Your task to perform on an android device: change notifications settings Image 0: 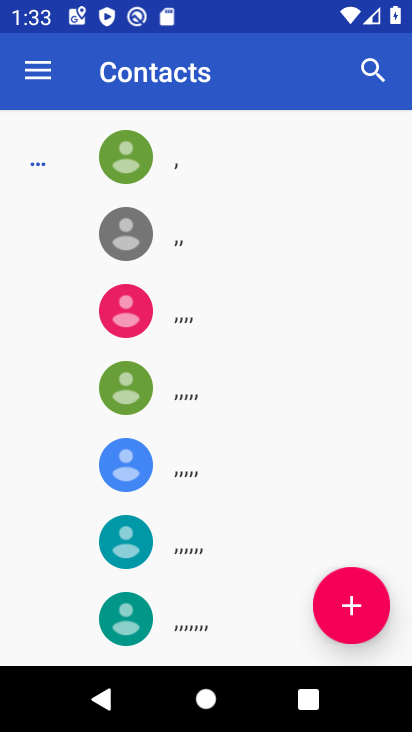
Step 0: press home button
Your task to perform on an android device: change notifications settings Image 1: 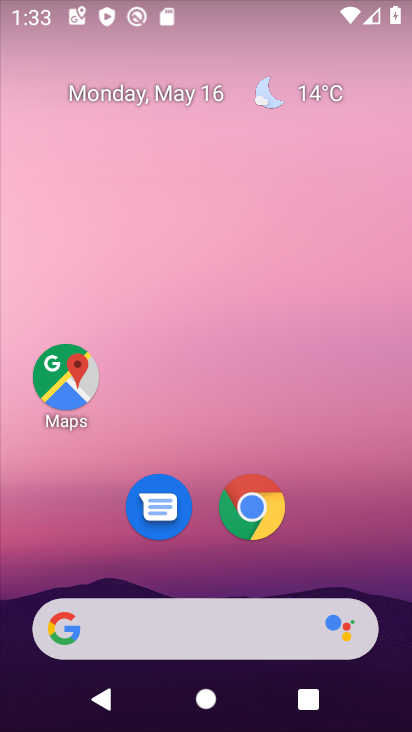
Step 1: drag from (264, 565) to (237, 199)
Your task to perform on an android device: change notifications settings Image 2: 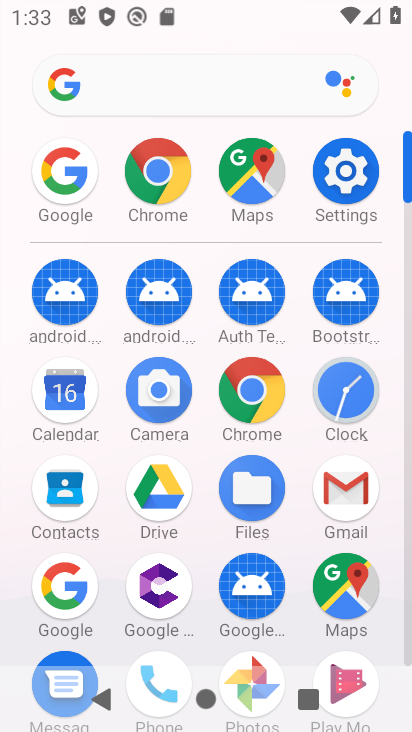
Step 2: click (360, 192)
Your task to perform on an android device: change notifications settings Image 3: 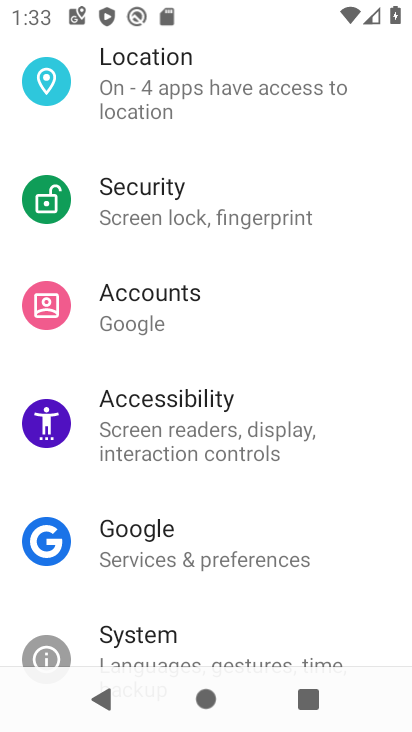
Step 3: drag from (211, 557) to (235, 722)
Your task to perform on an android device: change notifications settings Image 4: 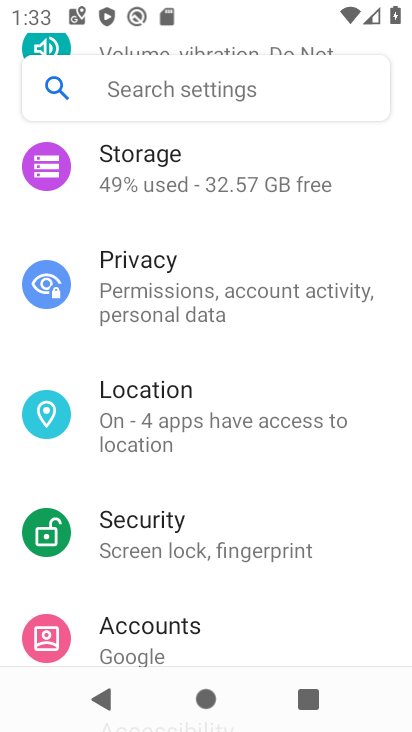
Step 4: drag from (273, 265) to (294, 709)
Your task to perform on an android device: change notifications settings Image 5: 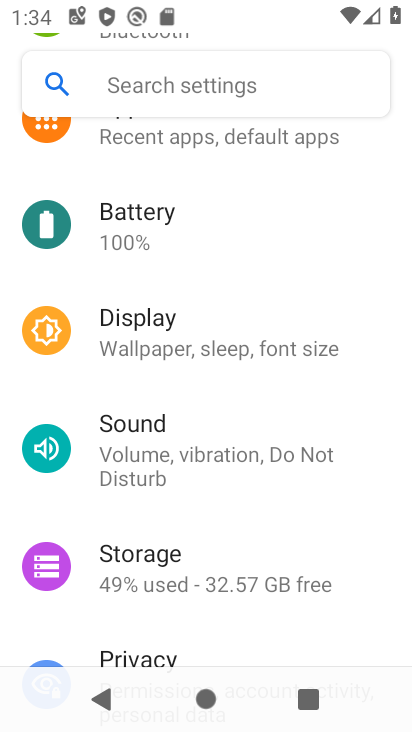
Step 5: drag from (295, 223) to (258, 681)
Your task to perform on an android device: change notifications settings Image 6: 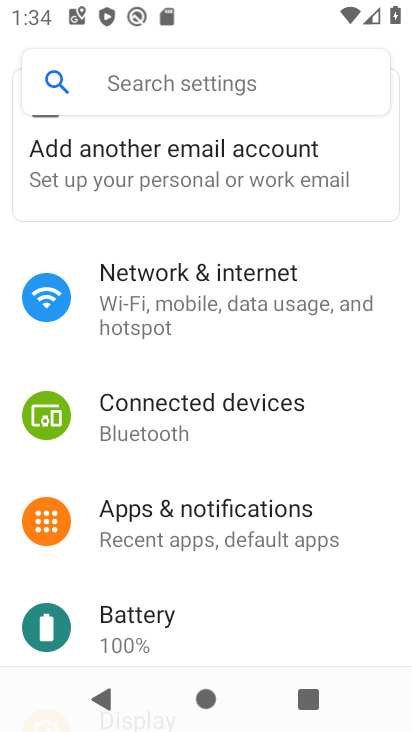
Step 6: click (260, 532)
Your task to perform on an android device: change notifications settings Image 7: 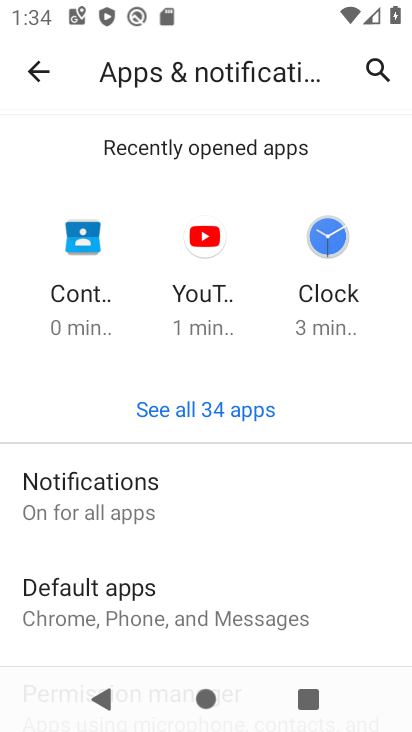
Step 7: click (230, 507)
Your task to perform on an android device: change notifications settings Image 8: 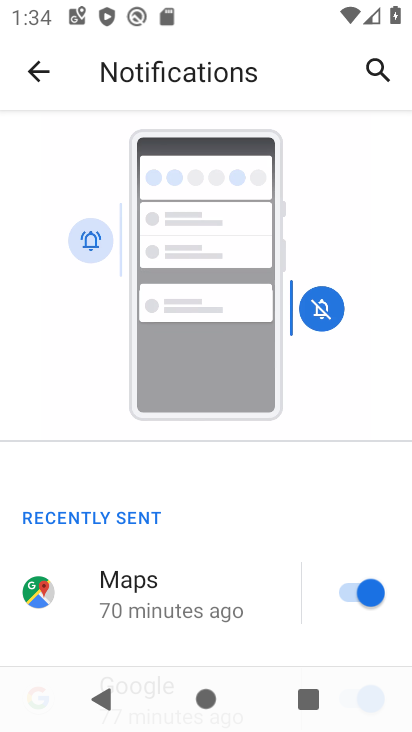
Step 8: click (383, 602)
Your task to perform on an android device: change notifications settings Image 9: 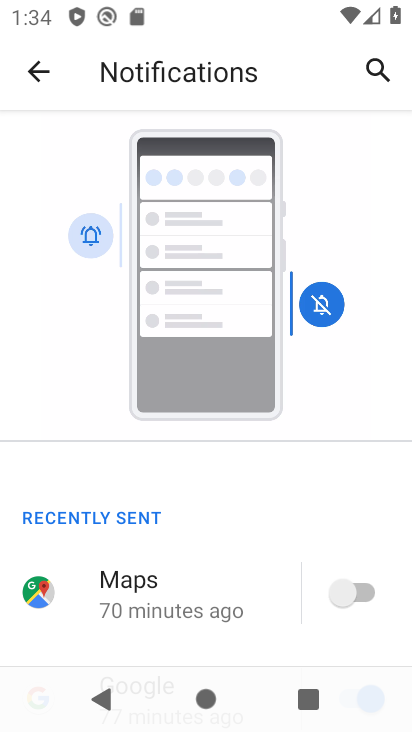
Step 9: task complete